Your task to perform on an android device: Check the news Image 0: 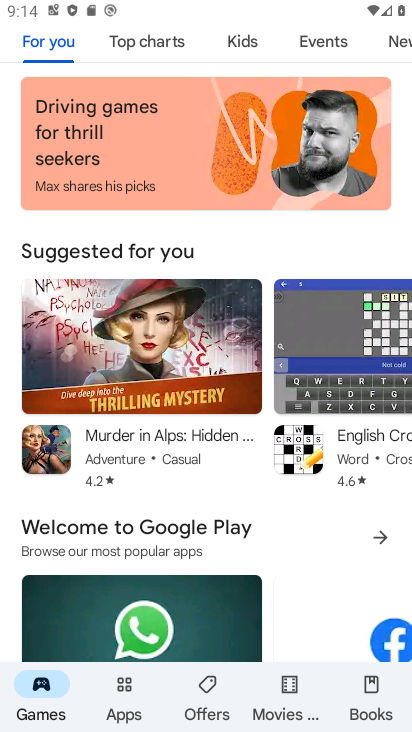
Step 0: press home button
Your task to perform on an android device: Check the news Image 1: 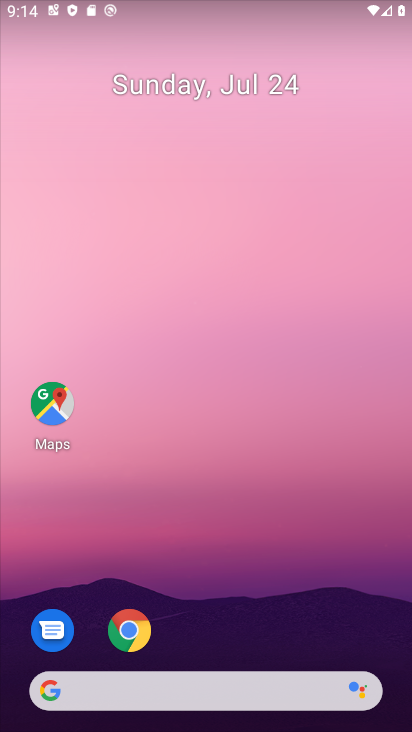
Step 1: drag from (178, 628) to (183, 180)
Your task to perform on an android device: Check the news Image 2: 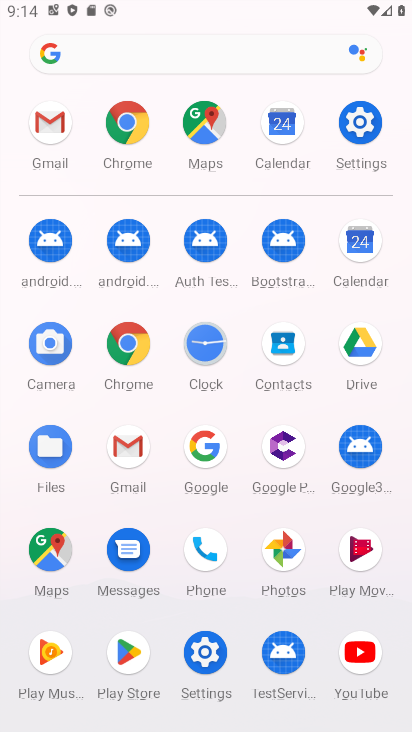
Step 2: click (226, 444)
Your task to perform on an android device: Check the news Image 3: 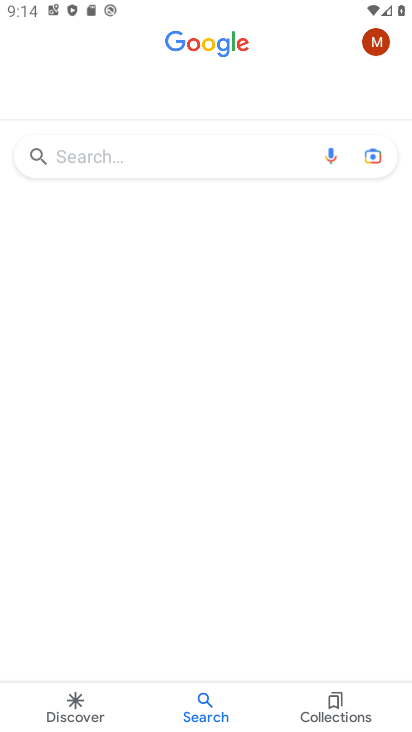
Step 3: drag from (183, 161) to (133, 161)
Your task to perform on an android device: Check the news Image 4: 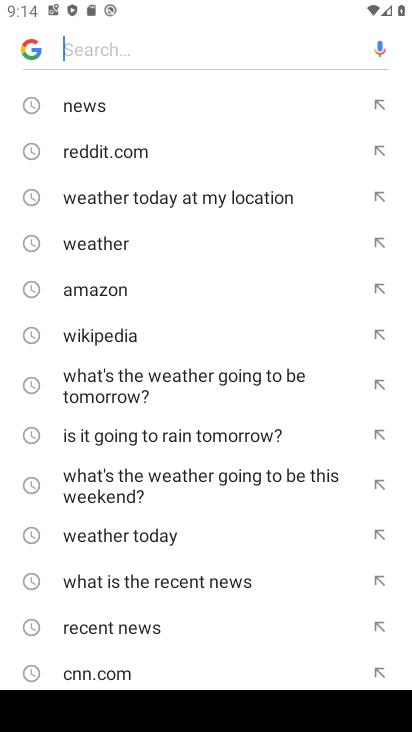
Step 4: click (97, 106)
Your task to perform on an android device: Check the news Image 5: 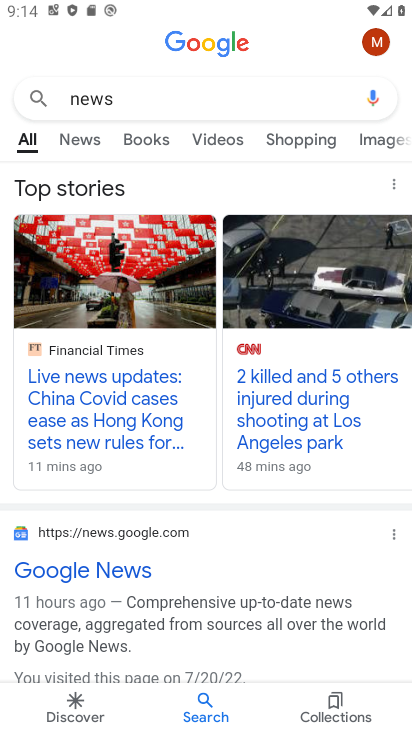
Step 5: click (65, 143)
Your task to perform on an android device: Check the news Image 6: 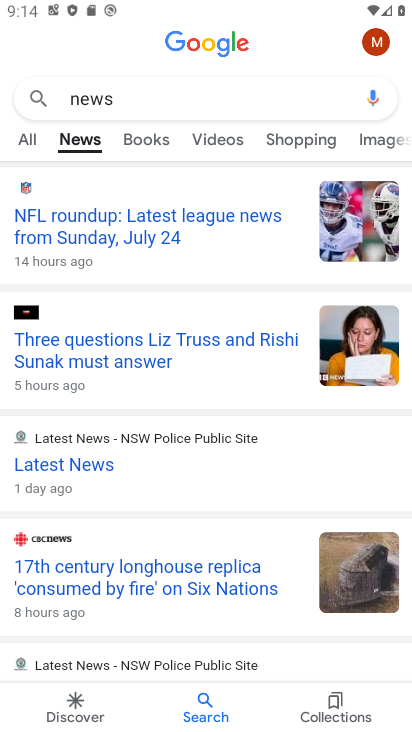
Step 6: task complete